Your task to perform on an android device: turn on translation in the chrome app Image 0: 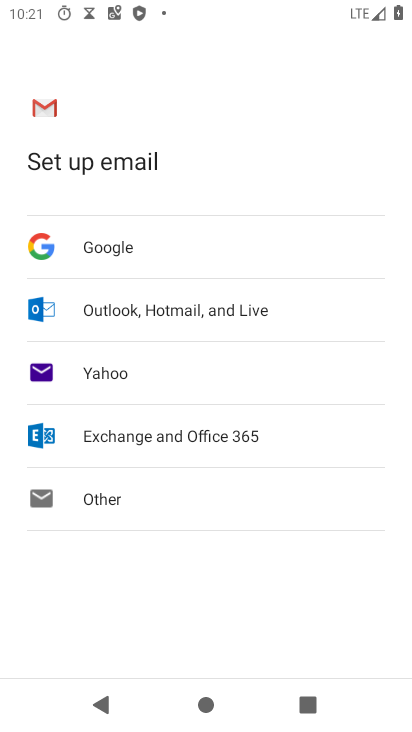
Step 0: press home button
Your task to perform on an android device: turn on translation in the chrome app Image 1: 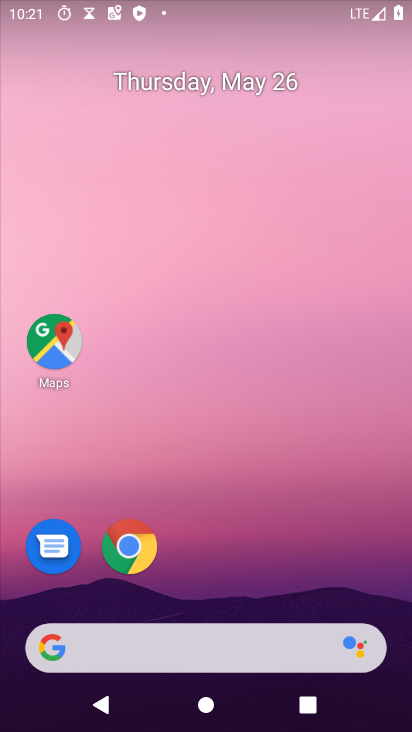
Step 1: drag from (341, 583) to (334, 193)
Your task to perform on an android device: turn on translation in the chrome app Image 2: 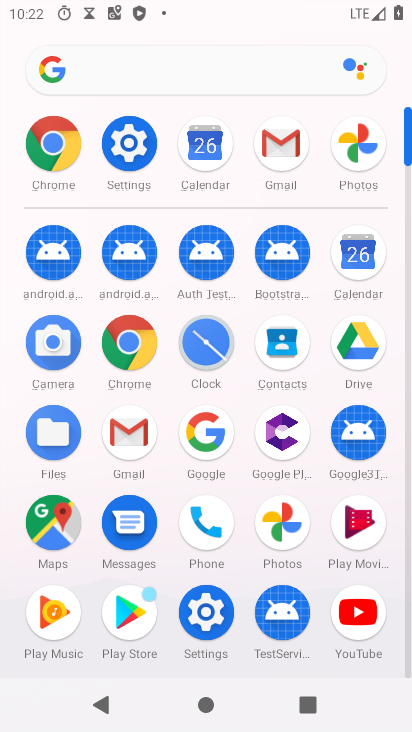
Step 2: click (113, 339)
Your task to perform on an android device: turn on translation in the chrome app Image 3: 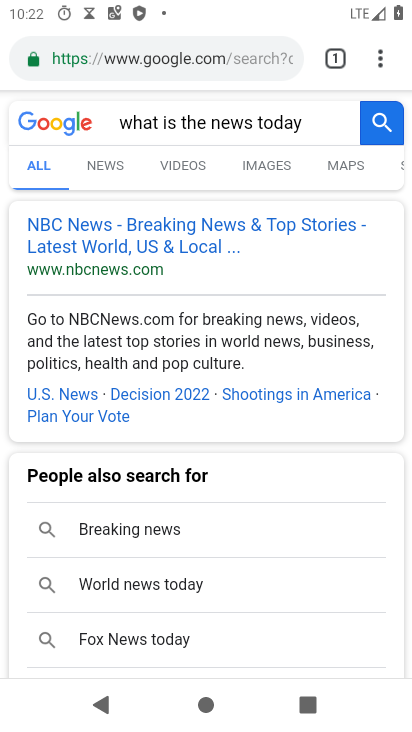
Step 3: drag from (380, 60) to (170, 570)
Your task to perform on an android device: turn on translation in the chrome app Image 4: 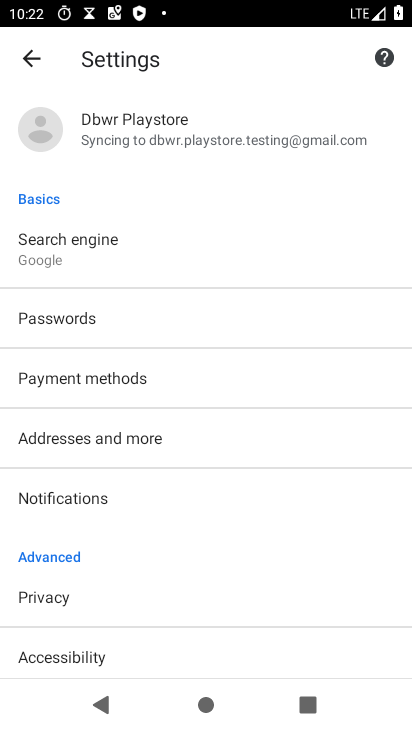
Step 4: drag from (160, 625) to (220, 312)
Your task to perform on an android device: turn on translation in the chrome app Image 5: 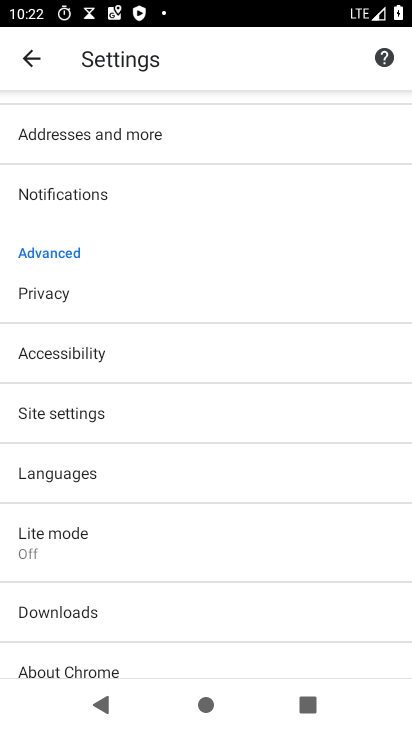
Step 5: click (79, 481)
Your task to perform on an android device: turn on translation in the chrome app Image 6: 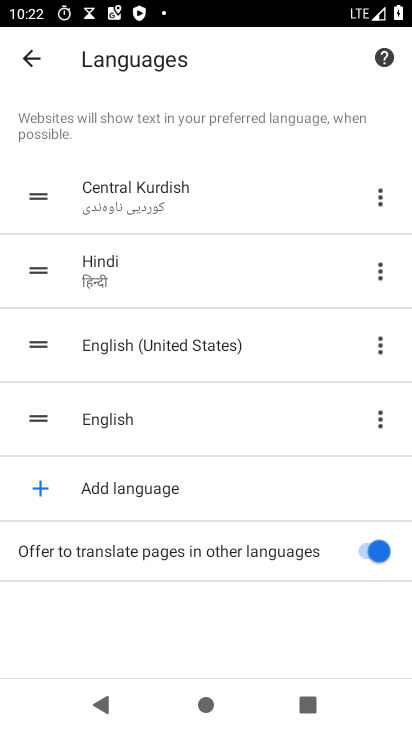
Step 6: task complete